Your task to perform on an android device: see tabs open on other devices in the chrome app Image 0: 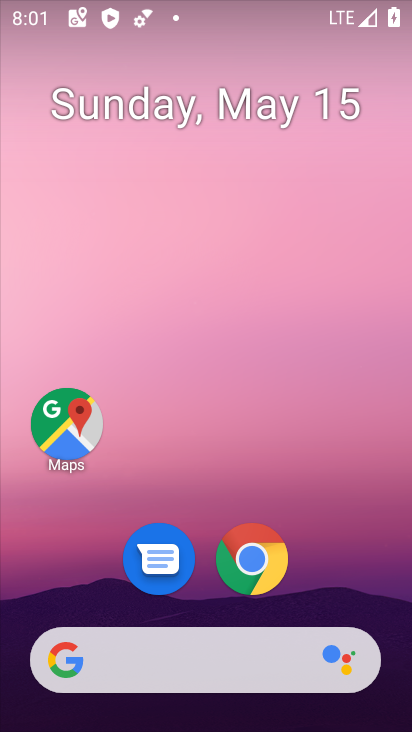
Step 0: click (296, 545)
Your task to perform on an android device: see tabs open on other devices in the chrome app Image 1: 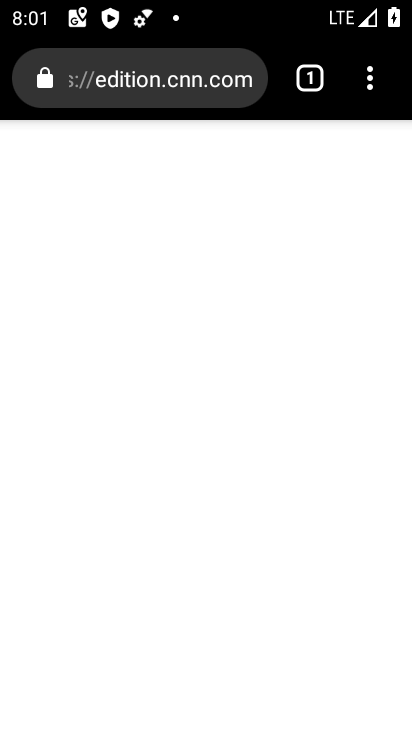
Step 1: click (372, 74)
Your task to perform on an android device: see tabs open on other devices in the chrome app Image 2: 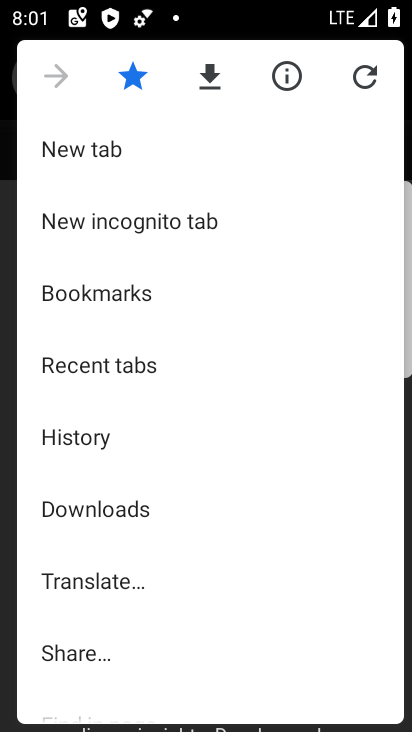
Step 2: click (121, 374)
Your task to perform on an android device: see tabs open on other devices in the chrome app Image 3: 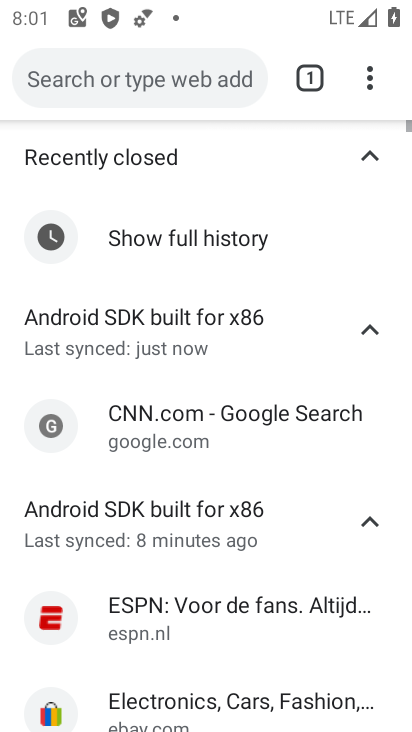
Step 3: task complete